Your task to perform on an android device: Open CNN.com Image 0: 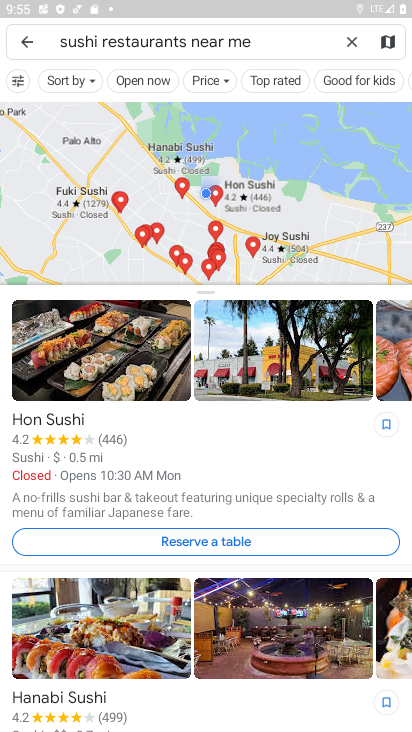
Step 0: press home button
Your task to perform on an android device: Open CNN.com Image 1: 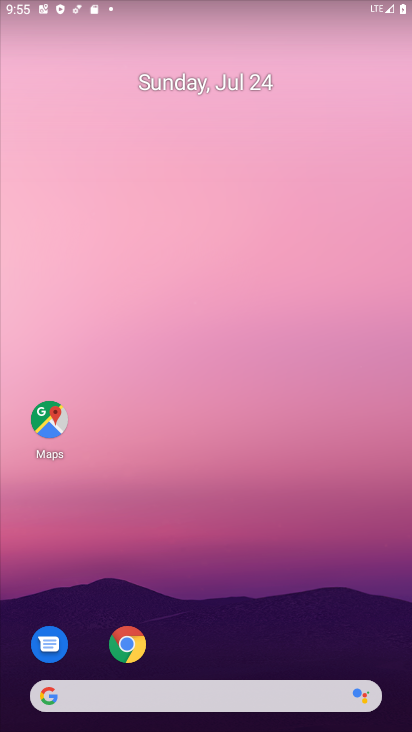
Step 1: click (136, 642)
Your task to perform on an android device: Open CNN.com Image 2: 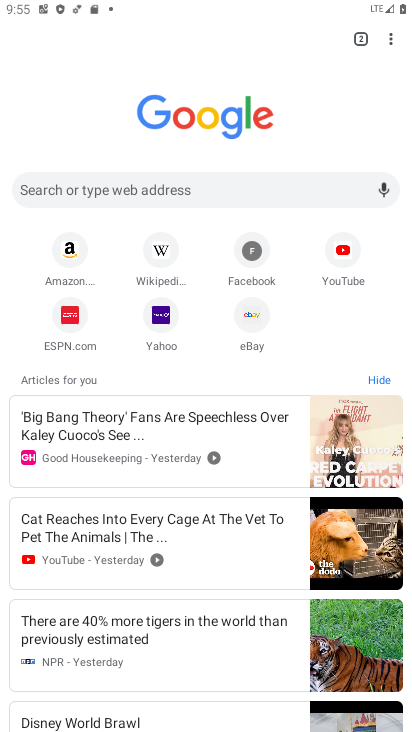
Step 2: click (158, 180)
Your task to perform on an android device: Open CNN.com Image 3: 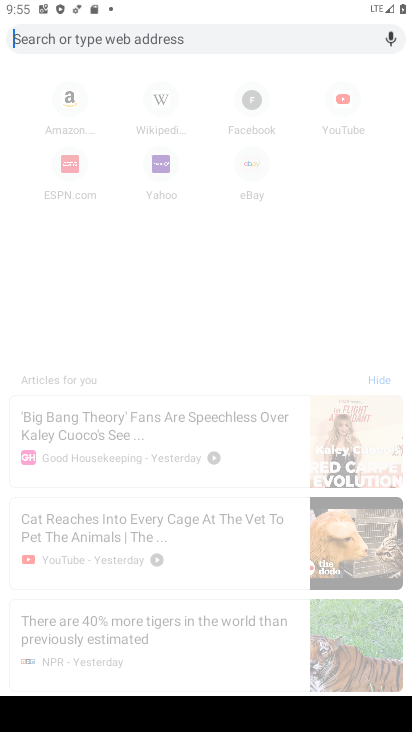
Step 3: type " CNN.com"
Your task to perform on an android device: Open CNN.com Image 4: 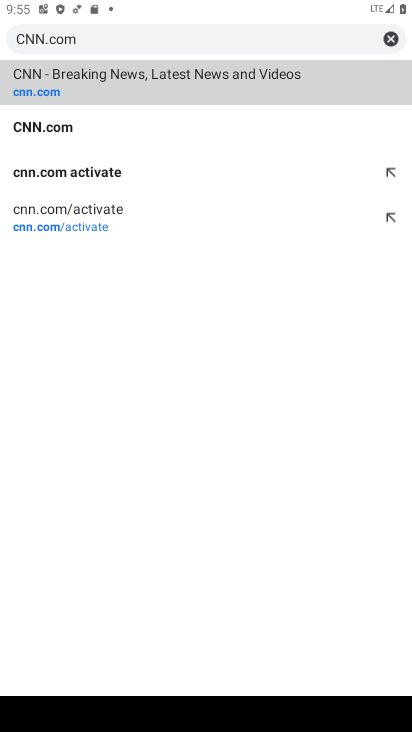
Step 4: click (81, 81)
Your task to perform on an android device: Open CNN.com Image 5: 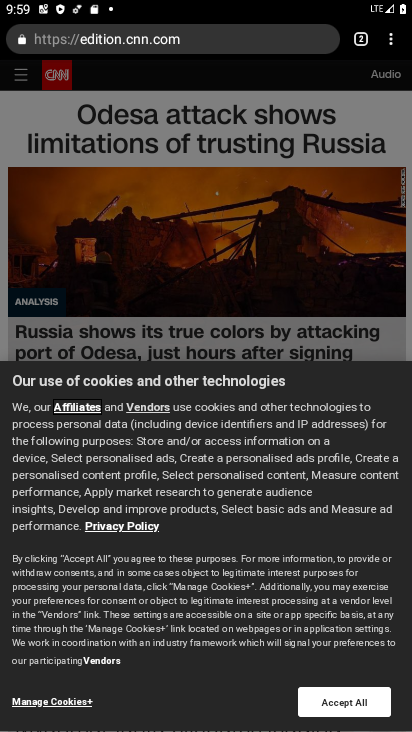
Step 5: task complete